Your task to perform on an android device: change the clock display to analog Image 0: 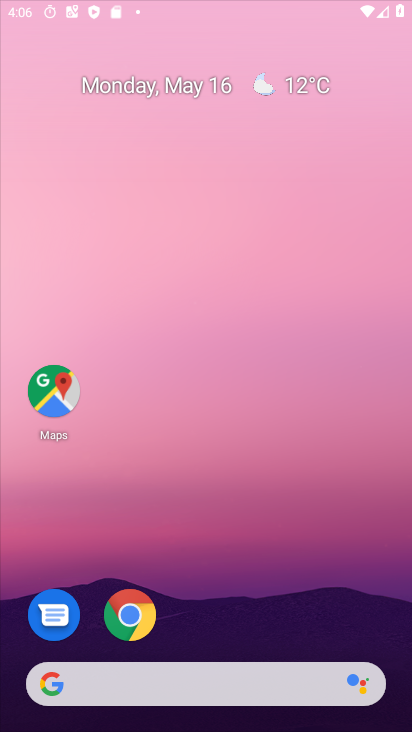
Step 0: drag from (362, 631) to (140, 185)
Your task to perform on an android device: change the clock display to analog Image 1: 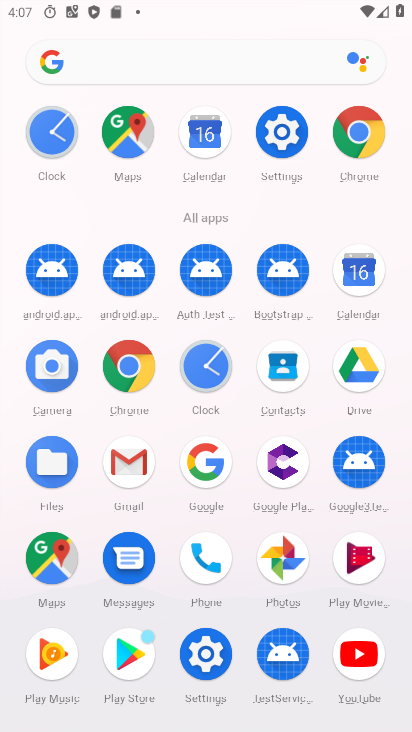
Step 1: click (215, 369)
Your task to perform on an android device: change the clock display to analog Image 2: 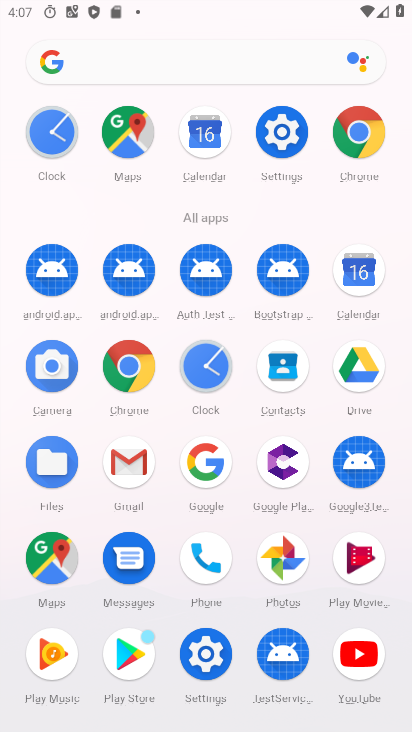
Step 2: click (214, 369)
Your task to perform on an android device: change the clock display to analog Image 3: 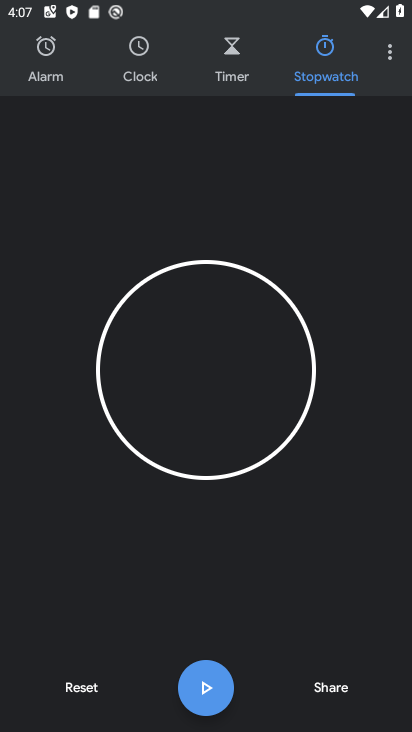
Step 3: click (385, 50)
Your task to perform on an android device: change the clock display to analog Image 4: 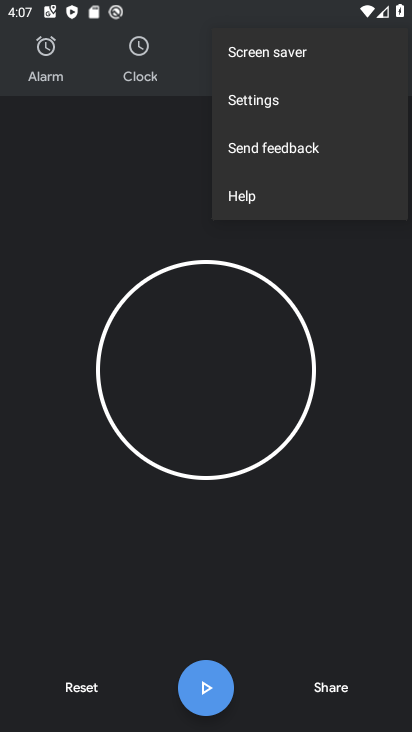
Step 4: click (256, 97)
Your task to perform on an android device: change the clock display to analog Image 5: 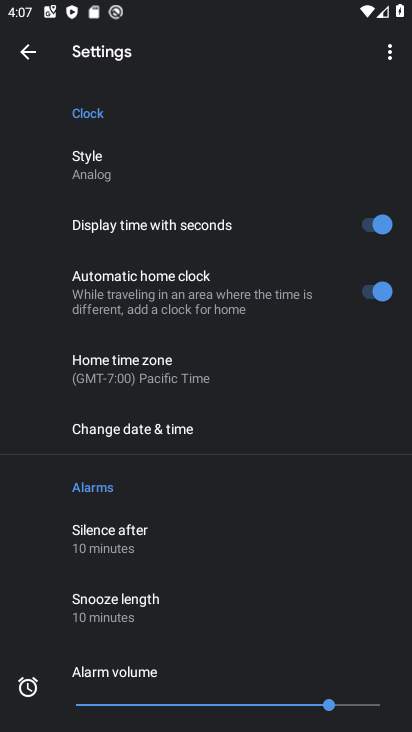
Step 5: click (168, 149)
Your task to perform on an android device: change the clock display to analog Image 6: 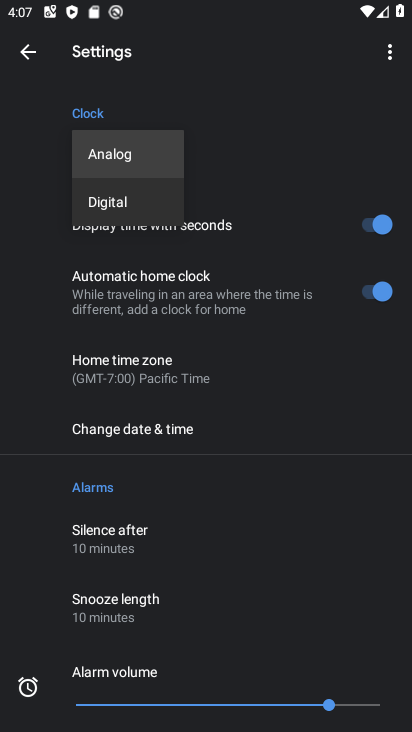
Step 6: click (118, 203)
Your task to perform on an android device: change the clock display to analog Image 7: 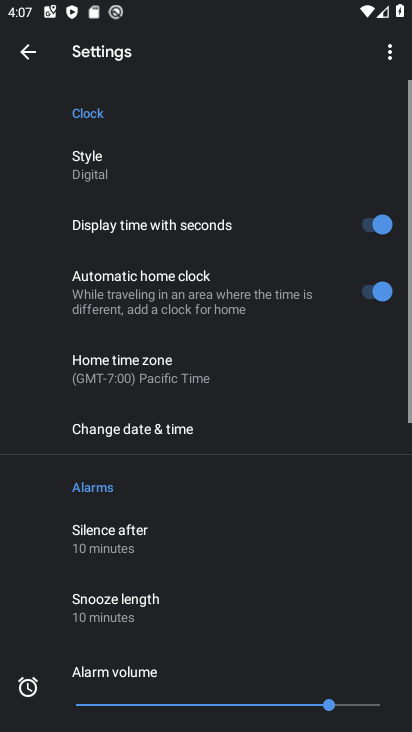
Step 7: click (144, 152)
Your task to perform on an android device: change the clock display to analog Image 8: 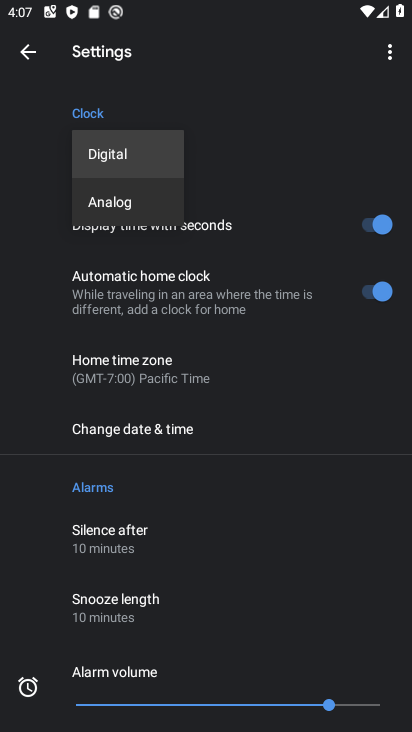
Step 8: click (109, 205)
Your task to perform on an android device: change the clock display to analog Image 9: 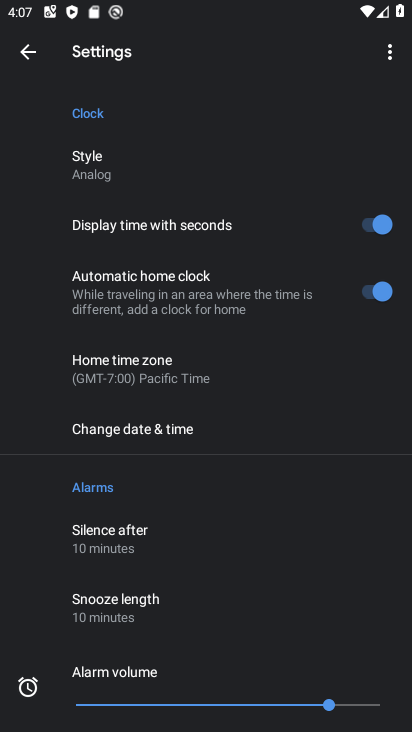
Step 9: task complete